Your task to perform on an android device: choose inbox layout in the gmail app Image 0: 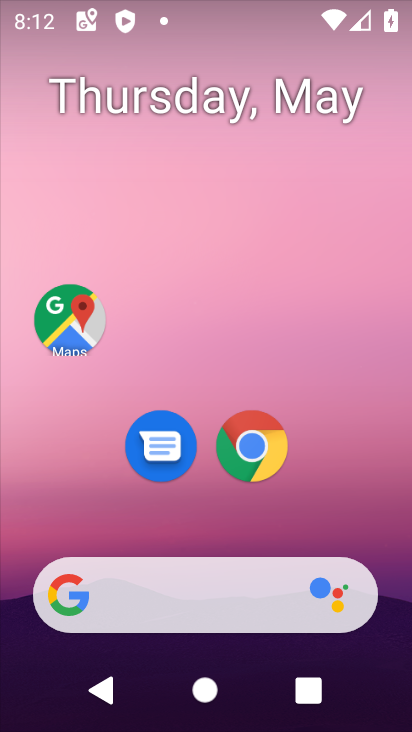
Step 0: drag from (359, 512) to (353, 141)
Your task to perform on an android device: choose inbox layout in the gmail app Image 1: 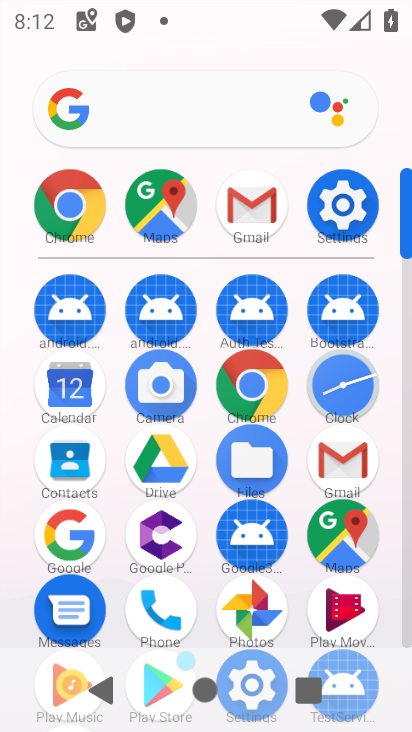
Step 1: click (339, 472)
Your task to perform on an android device: choose inbox layout in the gmail app Image 2: 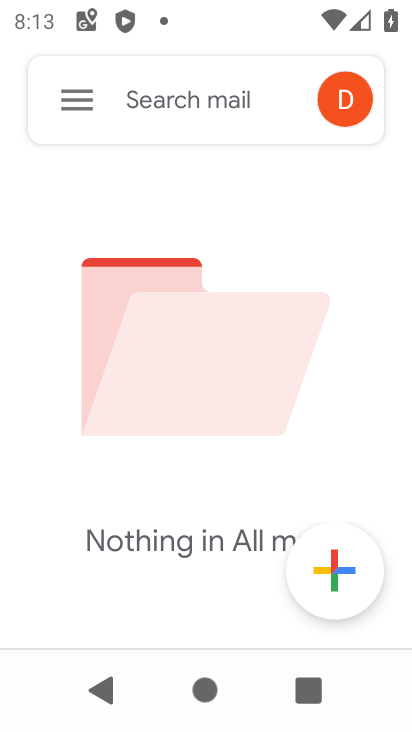
Step 2: click (63, 99)
Your task to perform on an android device: choose inbox layout in the gmail app Image 3: 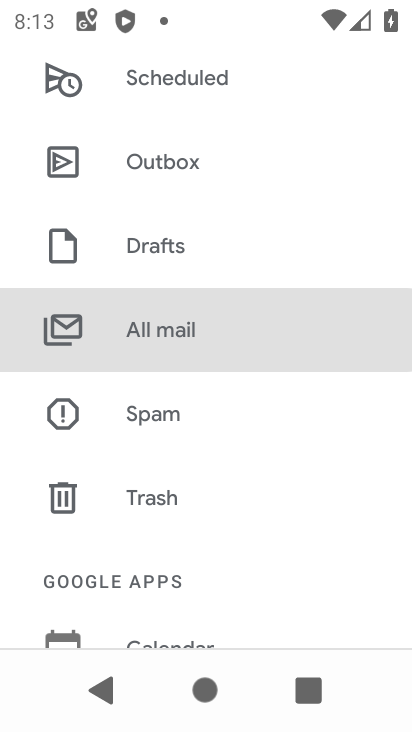
Step 3: drag from (246, 628) to (332, 137)
Your task to perform on an android device: choose inbox layout in the gmail app Image 4: 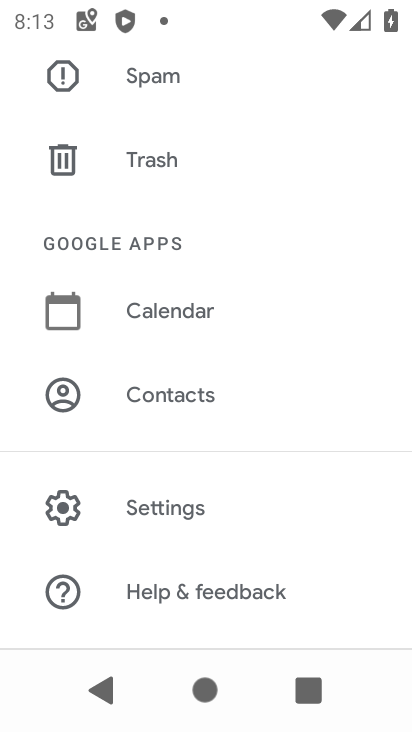
Step 4: click (219, 524)
Your task to perform on an android device: choose inbox layout in the gmail app Image 5: 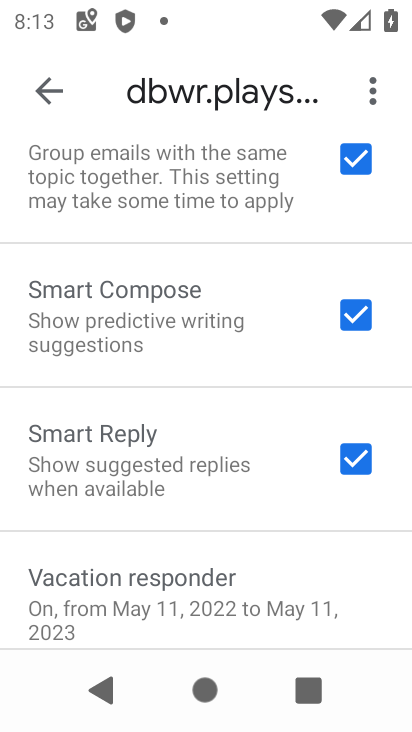
Step 5: drag from (235, 148) to (213, 601)
Your task to perform on an android device: choose inbox layout in the gmail app Image 6: 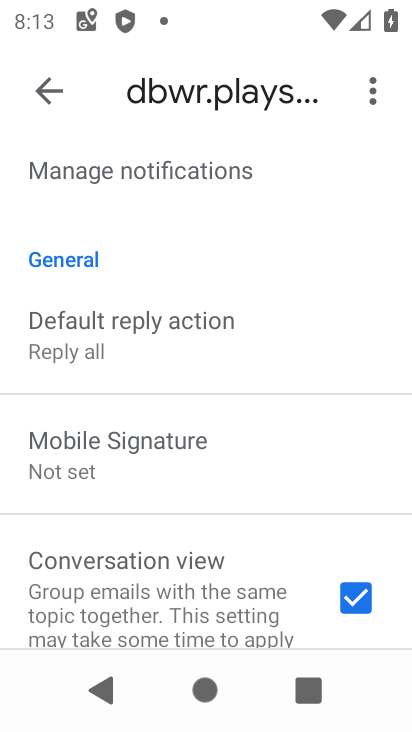
Step 6: drag from (261, 114) to (237, 609)
Your task to perform on an android device: choose inbox layout in the gmail app Image 7: 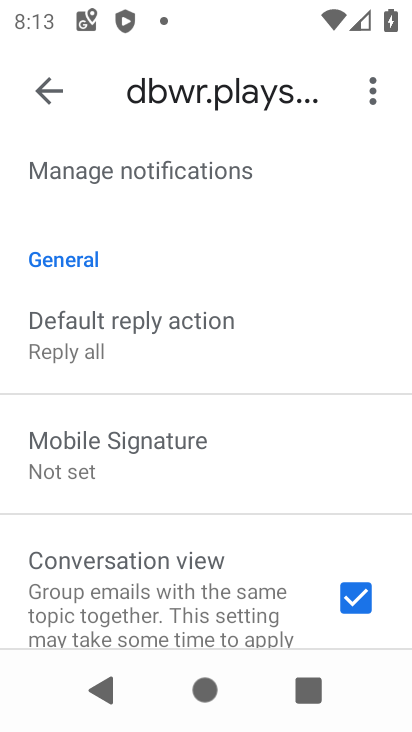
Step 7: drag from (304, 169) to (225, 587)
Your task to perform on an android device: choose inbox layout in the gmail app Image 8: 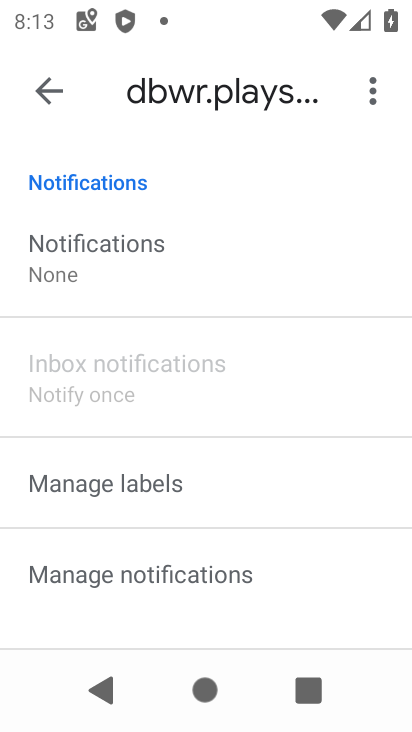
Step 8: drag from (203, 241) to (183, 590)
Your task to perform on an android device: choose inbox layout in the gmail app Image 9: 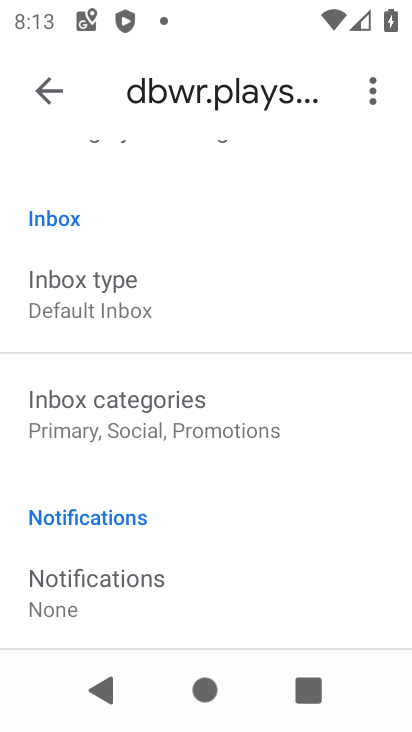
Step 9: click (110, 299)
Your task to perform on an android device: choose inbox layout in the gmail app Image 10: 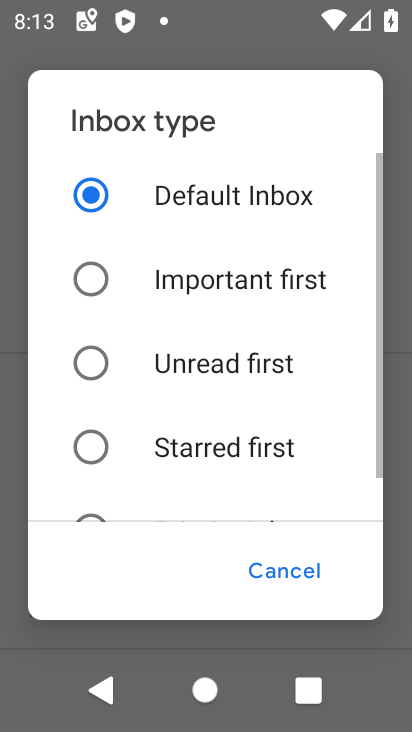
Step 10: click (88, 277)
Your task to perform on an android device: choose inbox layout in the gmail app Image 11: 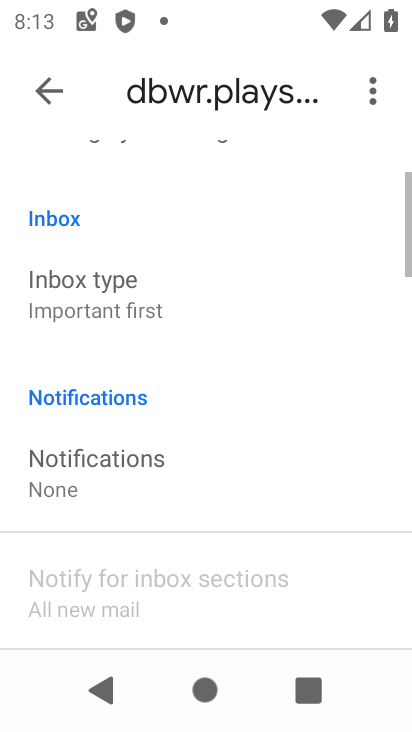
Step 11: task complete